Your task to perform on an android device: allow cookies in the chrome app Image 0: 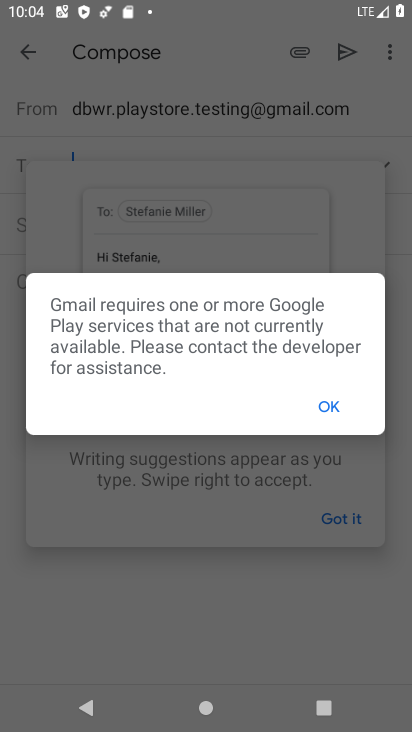
Step 0: press home button
Your task to perform on an android device: allow cookies in the chrome app Image 1: 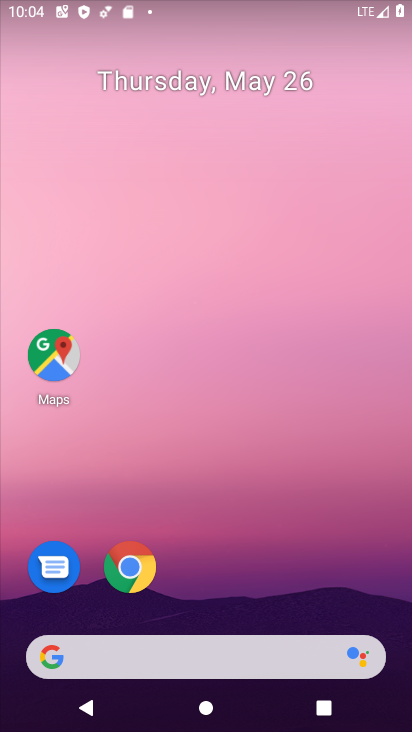
Step 1: click (130, 579)
Your task to perform on an android device: allow cookies in the chrome app Image 2: 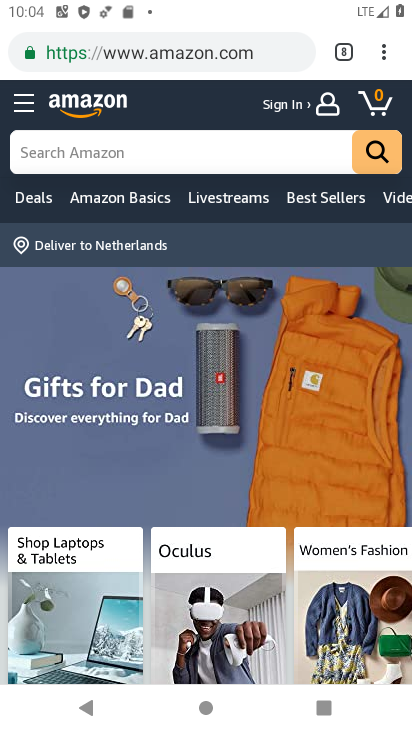
Step 2: click (379, 47)
Your task to perform on an android device: allow cookies in the chrome app Image 3: 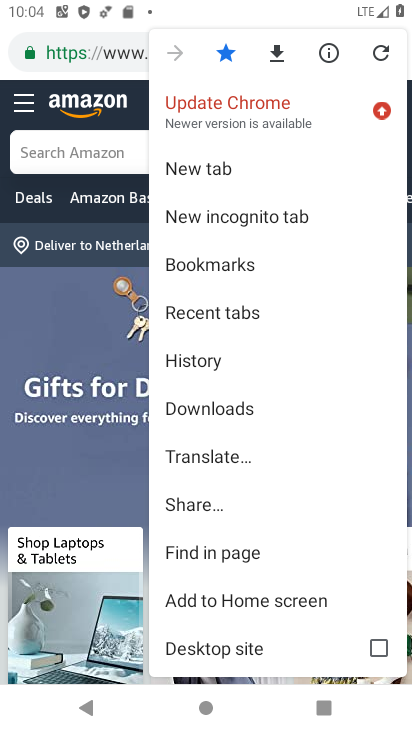
Step 3: drag from (265, 488) to (252, 37)
Your task to perform on an android device: allow cookies in the chrome app Image 4: 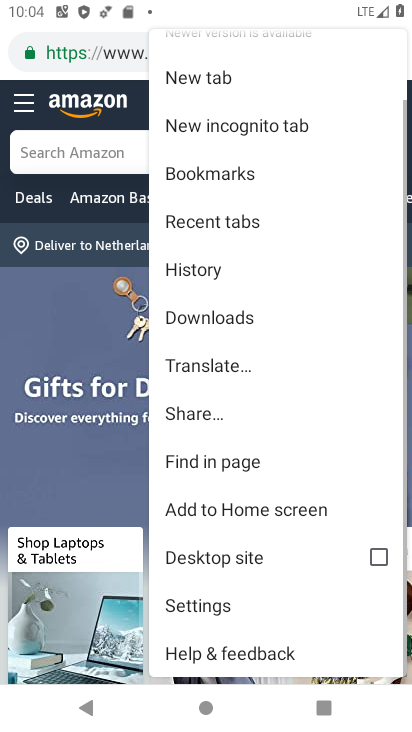
Step 4: click (223, 602)
Your task to perform on an android device: allow cookies in the chrome app Image 5: 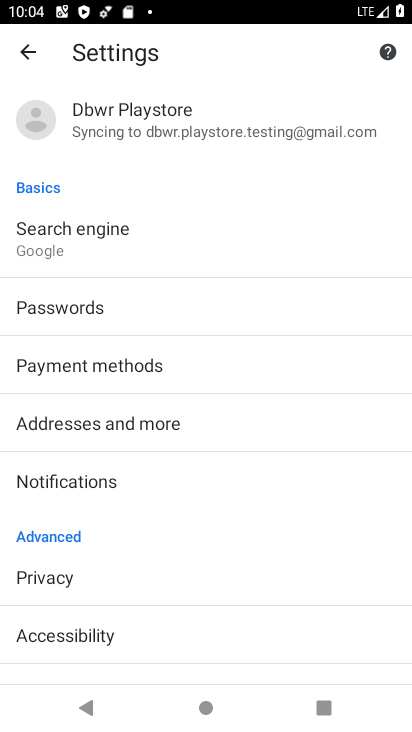
Step 5: drag from (248, 534) to (195, 30)
Your task to perform on an android device: allow cookies in the chrome app Image 6: 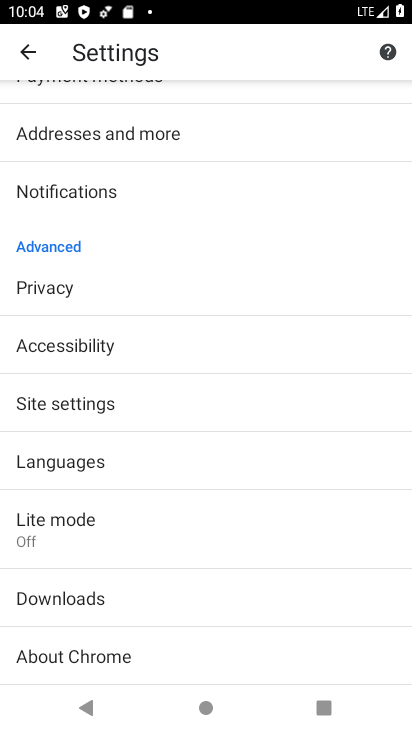
Step 6: click (118, 405)
Your task to perform on an android device: allow cookies in the chrome app Image 7: 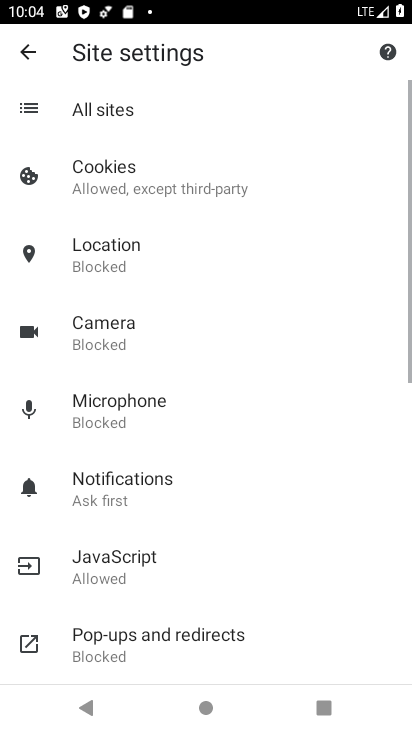
Step 7: click (285, 184)
Your task to perform on an android device: allow cookies in the chrome app Image 8: 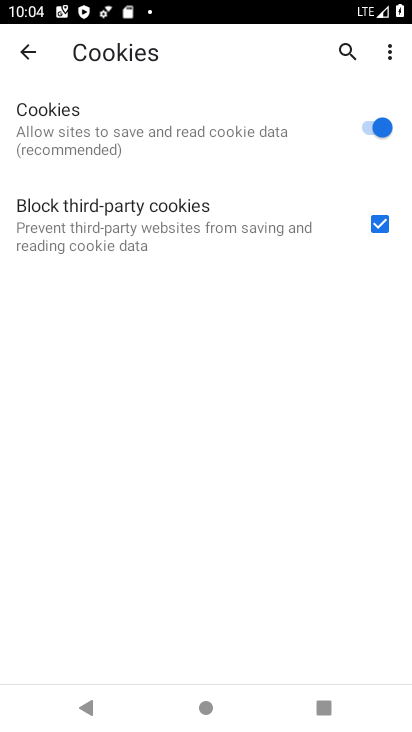
Step 8: task complete